Your task to perform on an android device: Open notification settings Image 0: 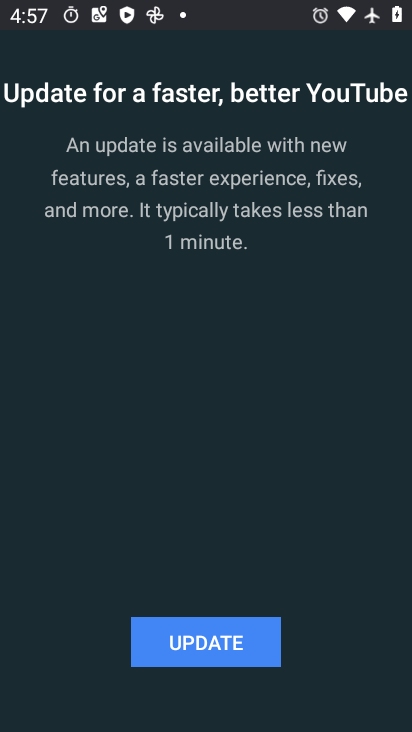
Step 0: press home button
Your task to perform on an android device: Open notification settings Image 1: 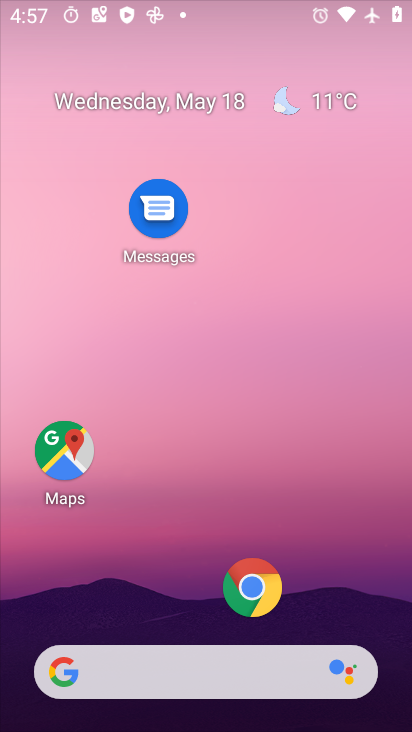
Step 1: drag from (254, 659) to (283, 148)
Your task to perform on an android device: Open notification settings Image 2: 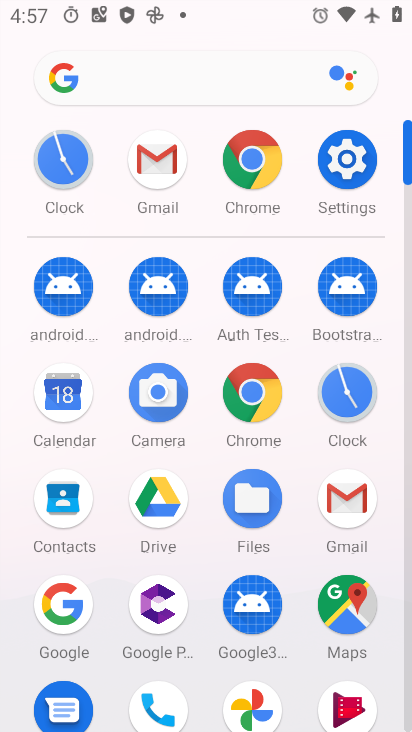
Step 2: click (364, 178)
Your task to perform on an android device: Open notification settings Image 3: 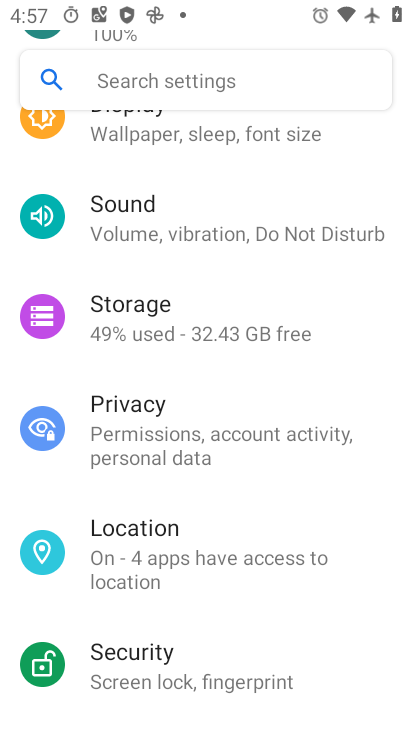
Step 3: drag from (189, 246) to (180, 598)
Your task to perform on an android device: Open notification settings Image 4: 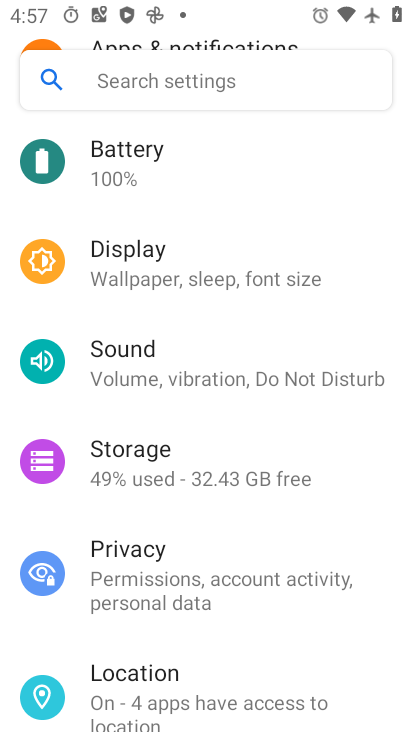
Step 4: drag from (216, 199) to (193, 505)
Your task to perform on an android device: Open notification settings Image 5: 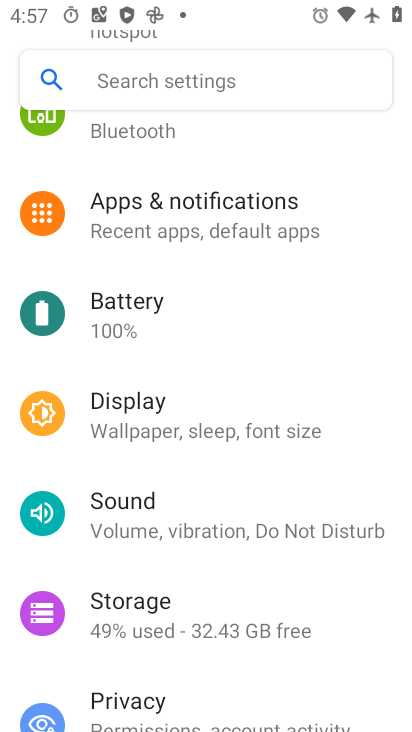
Step 5: click (200, 217)
Your task to perform on an android device: Open notification settings Image 6: 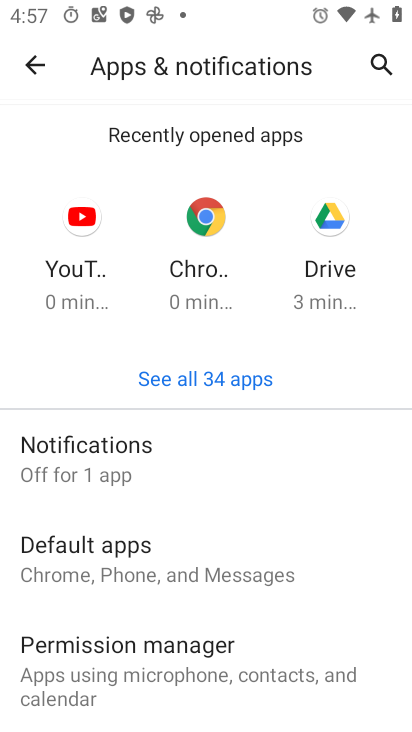
Step 6: click (169, 458)
Your task to perform on an android device: Open notification settings Image 7: 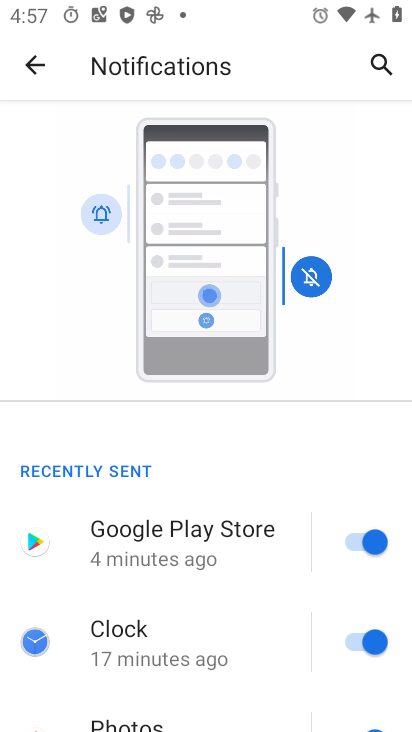
Step 7: task complete